Your task to perform on an android device: Open the web browser Image 0: 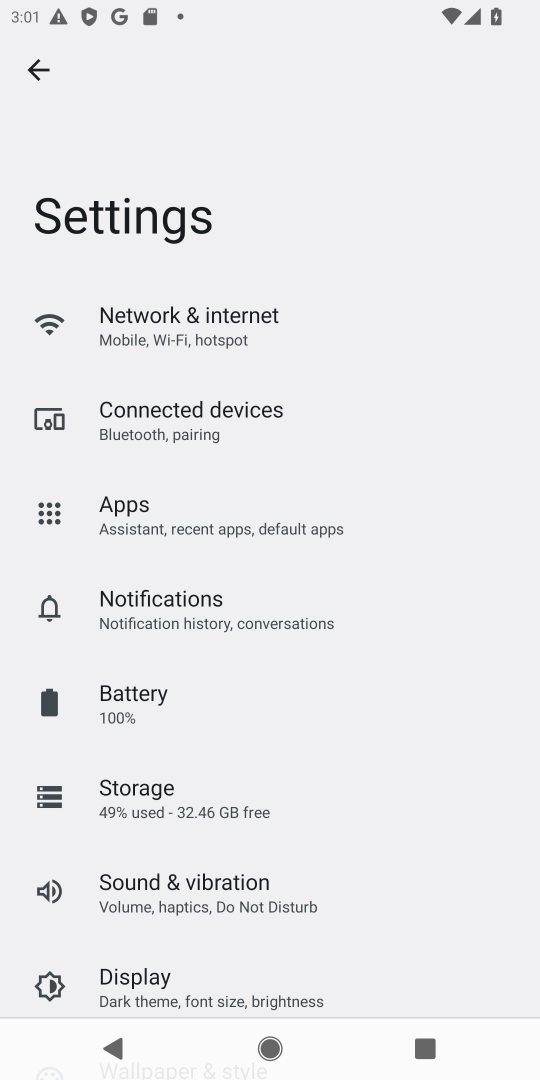
Step 0: press home button
Your task to perform on an android device: Open the web browser Image 1: 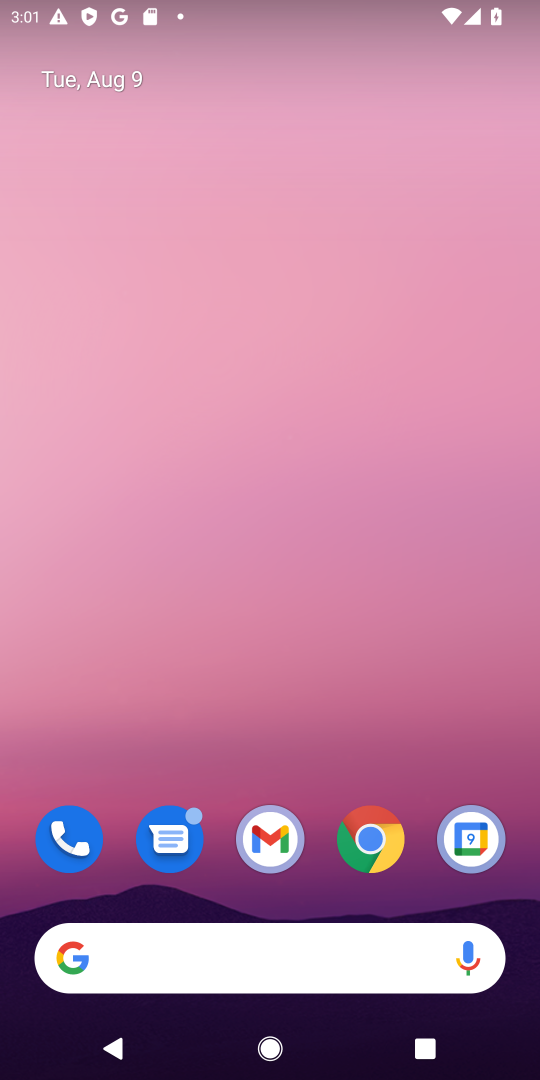
Step 1: click (61, 963)
Your task to perform on an android device: Open the web browser Image 2: 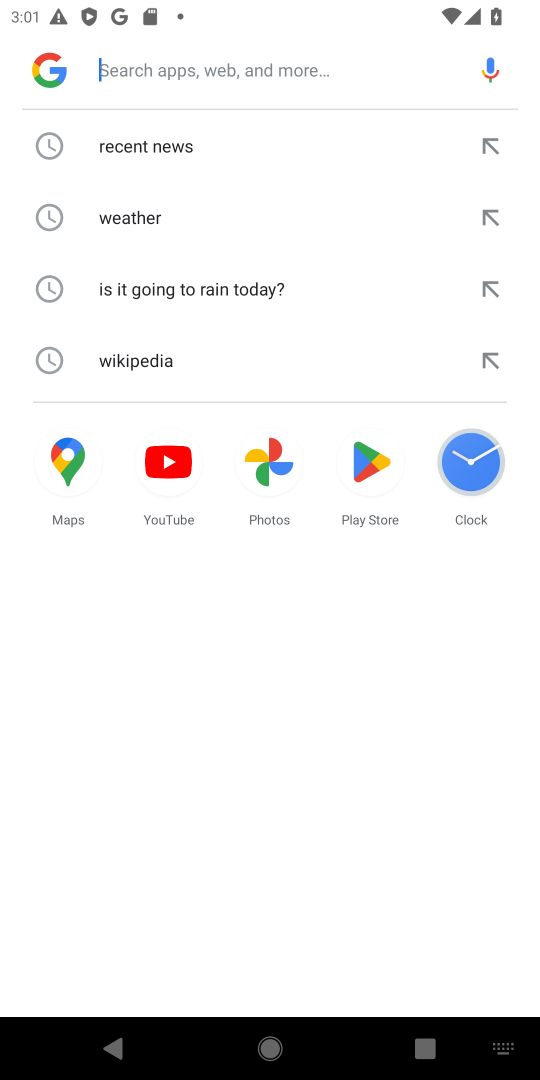
Step 2: click (52, 65)
Your task to perform on an android device: Open the web browser Image 3: 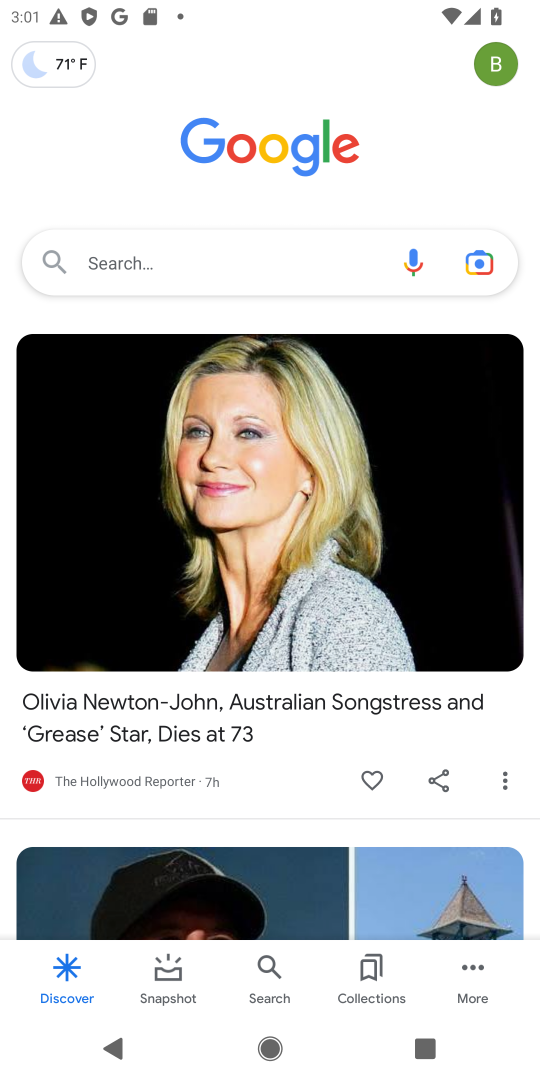
Step 3: task complete